Your task to perform on an android device: all mails in gmail Image 0: 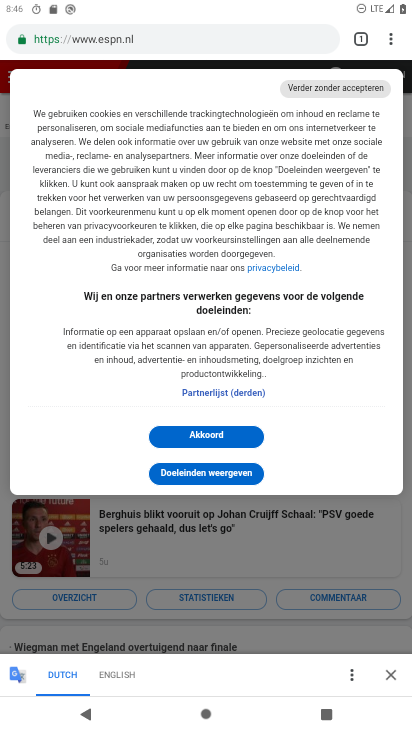
Step 0: press home button
Your task to perform on an android device: all mails in gmail Image 1: 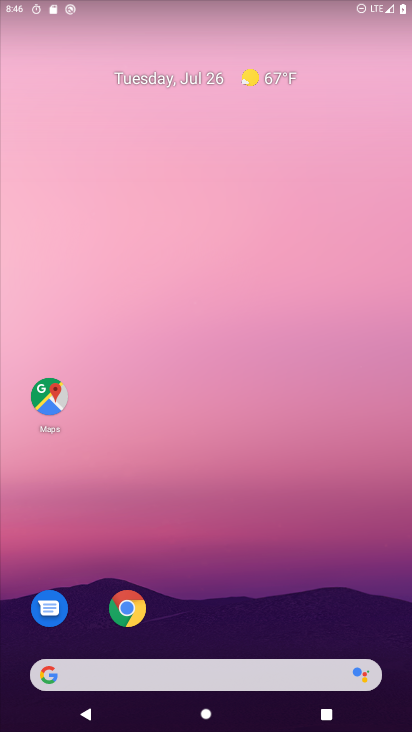
Step 1: drag from (176, 588) to (208, 187)
Your task to perform on an android device: all mails in gmail Image 2: 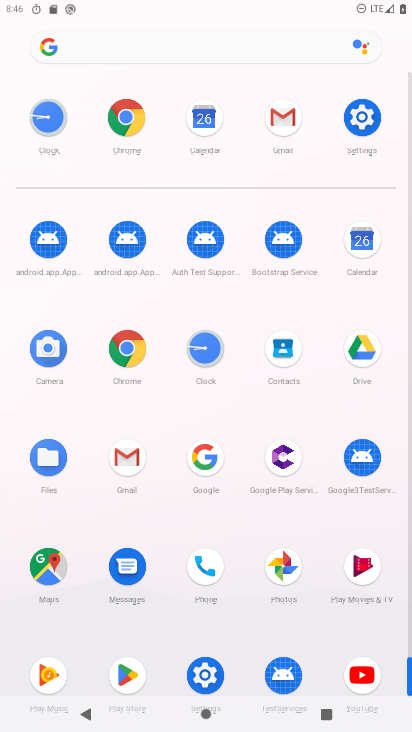
Step 2: click (123, 469)
Your task to perform on an android device: all mails in gmail Image 3: 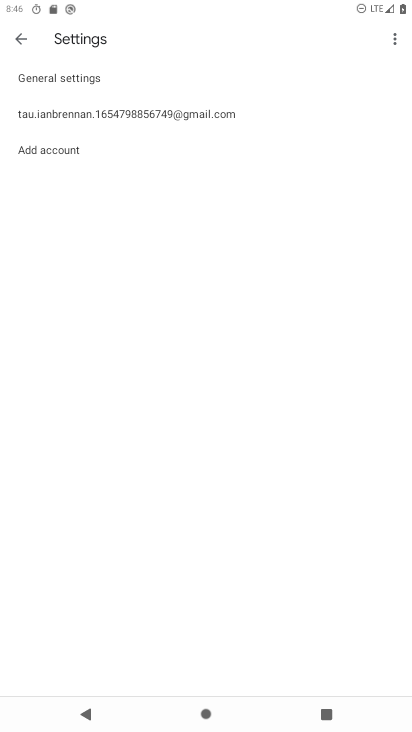
Step 3: click (21, 32)
Your task to perform on an android device: all mails in gmail Image 4: 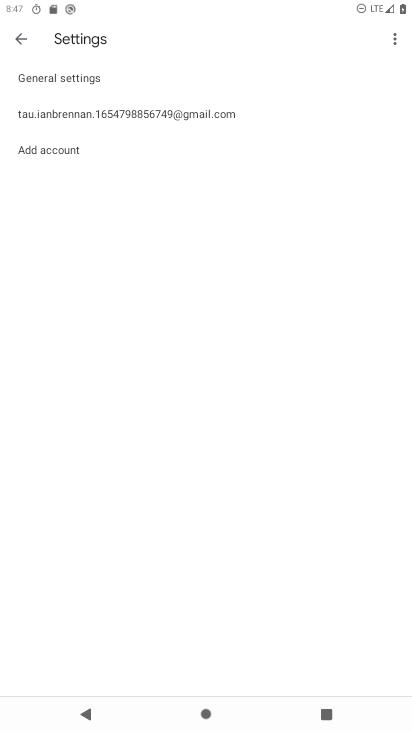
Step 4: click (18, 37)
Your task to perform on an android device: all mails in gmail Image 5: 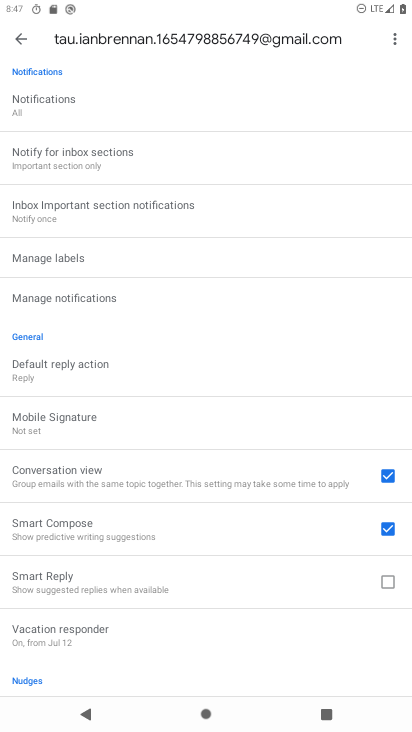
Step 5: click (23, 39)
Your task to perform on an android device: all mails in gmail Image 6: 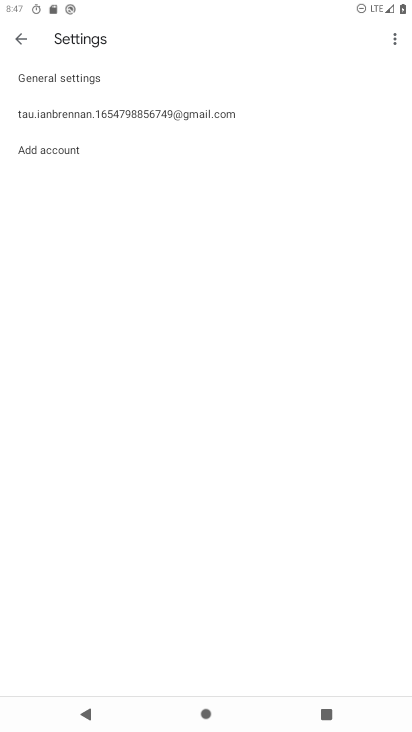
Step 6: click (23, 39)
Your task to perform on an android device: all mails in gmail Image 7: 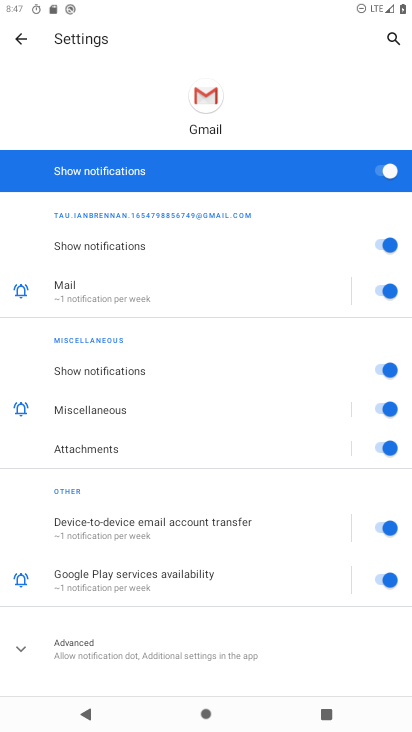
Step 7: click (23, 38)
Your task to perform on an android device: all mails in gmail Image 8: 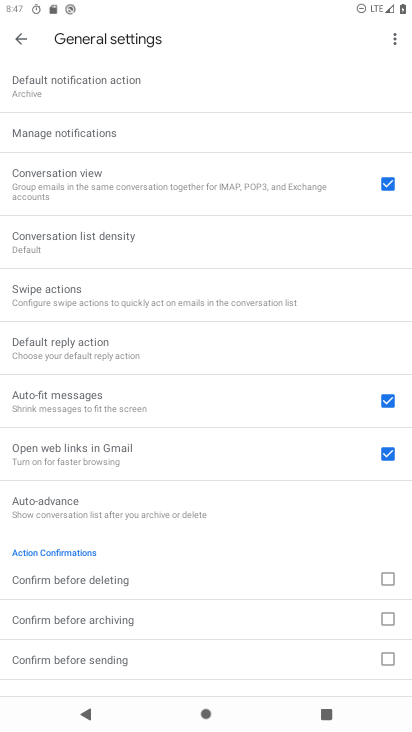
Step 8: click (23, 38)
Your task to perform on an android device: all mails in gmail Image 9: 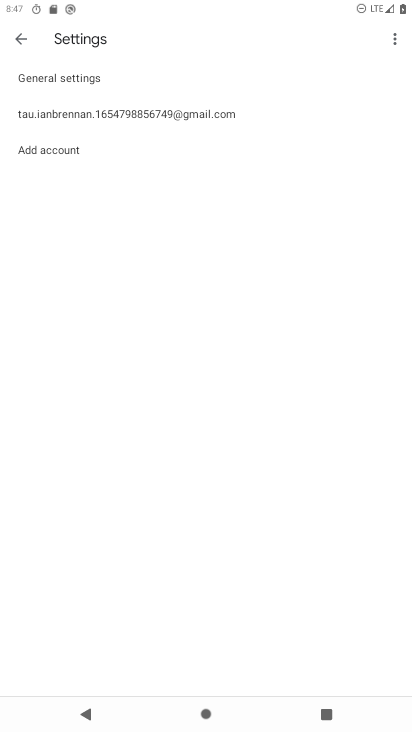
Step 9: click (23, 37)
Your task to perform on an android device: all mails in gmail Image 10: 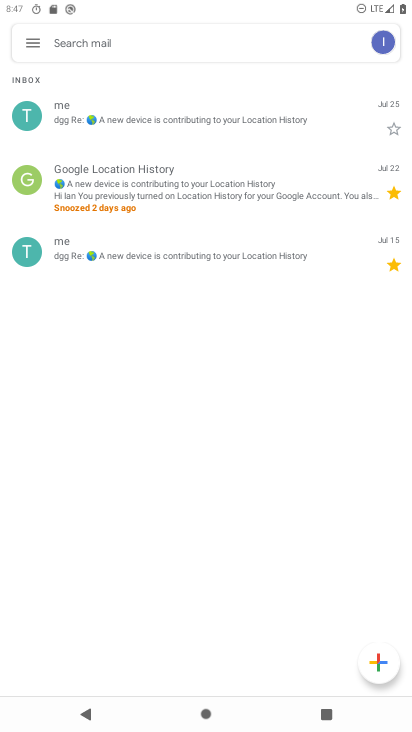
Step 10: click (23, 37)
Your task to perform on an android device: all mails in gmail Image 11: 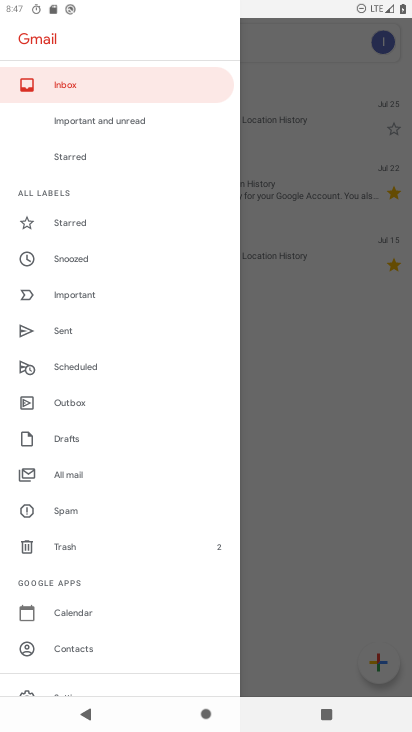
Step 11: click (74, 476)
Your task to perform on an android device: all mails in gmail Image 12: 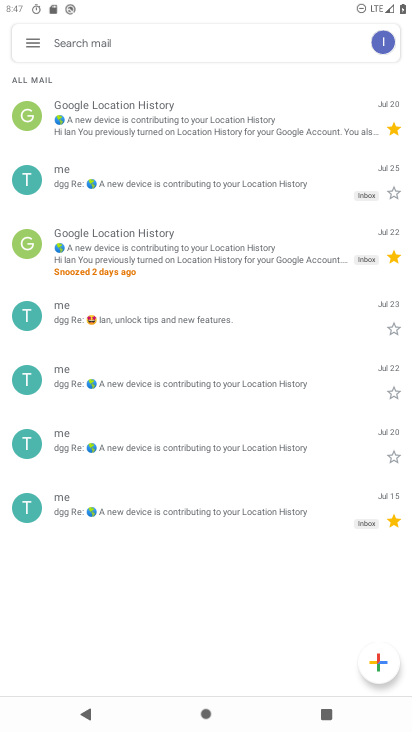
Step 12: task complete